Your task to perform on an android device: Search for pizza restaurants on Maps Image 0: 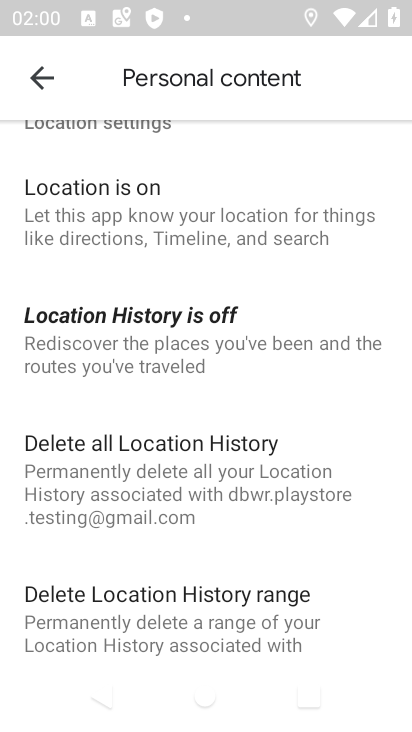
Step 0: press back button
Your task to perform on an android device: Search for pizza restaurants on Maps Image 1: 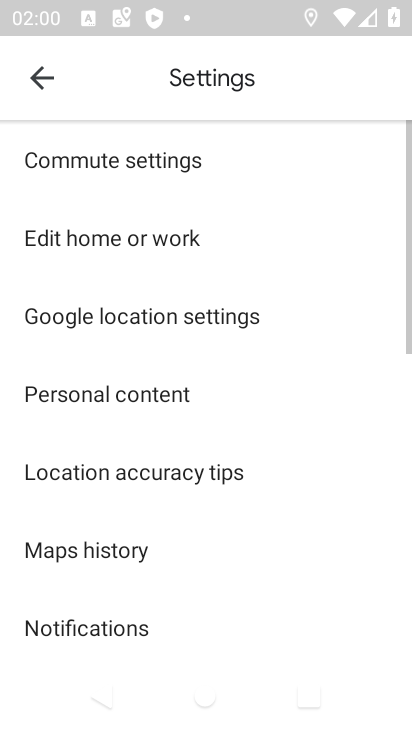
Step 1: press back button
Your task to perform on an android device: Search for pizza restaurants on Maps Image 2: 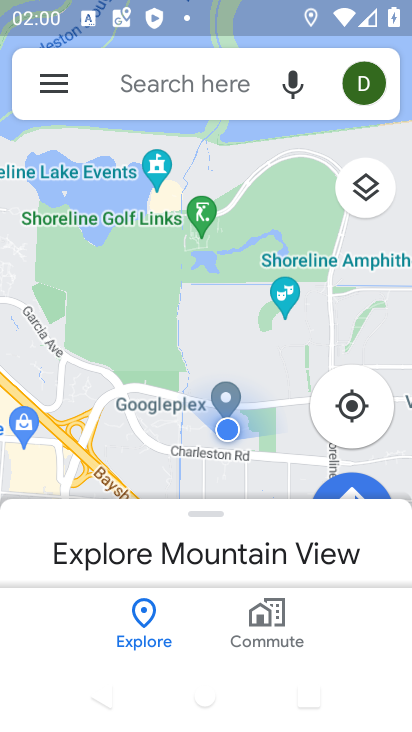
Step 2: click (154, 81)
Your task to perform on an android device: Search for pizza restaurants on Maps Image 3: 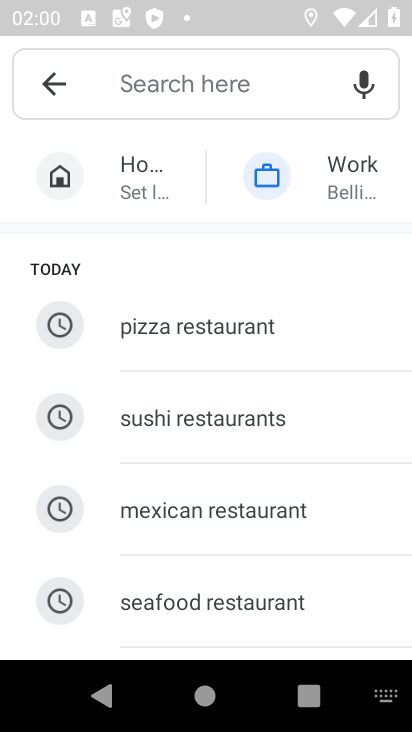
Step 3: type "pizza restaurants"
Your task to perform on an android device: Search for pizza restaurants on Maps Image 4: 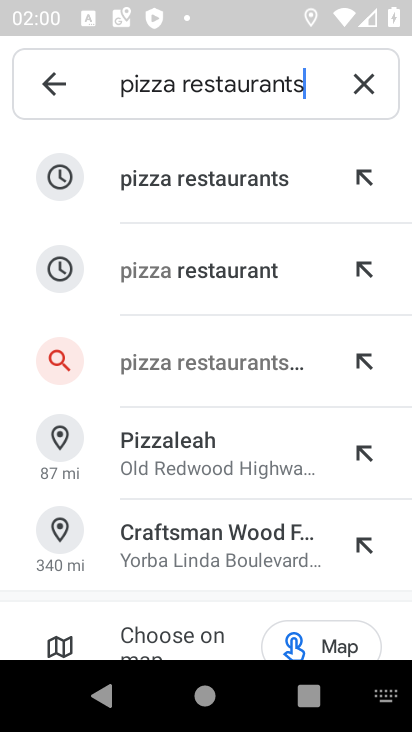
Step 4: click (191, 176)
Your task to perform on an android device: Search for pizza restaurants on Maps Image 5: 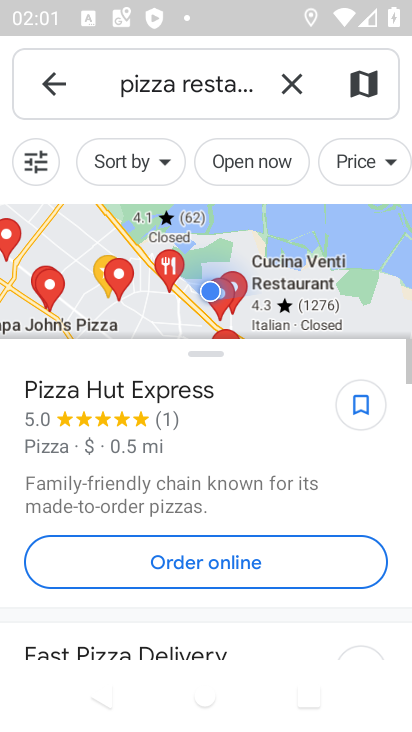
Step 5: task complete